Your task to perform on an android device: Search for Italian restaurants on Maps Image 0: 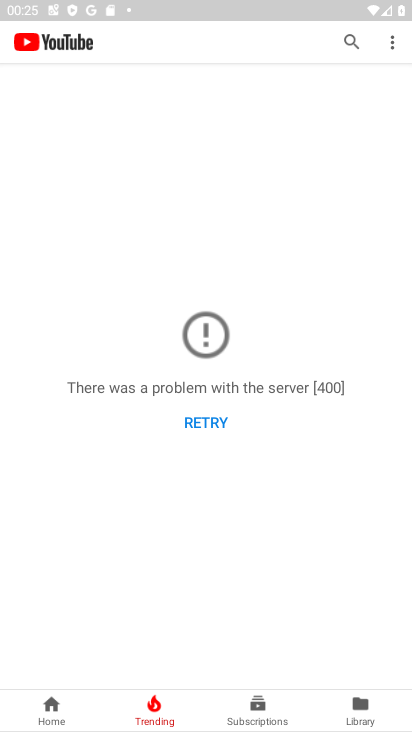
Step 0: press home button
Your task to perform on an android device: Search for Italian restaurants on Maps Image 1: 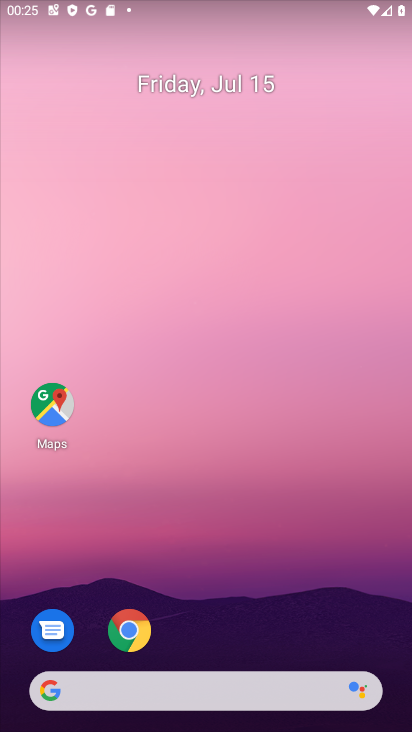
Step 1: click (61, 423)
Your task to perform on an android device: Search for Italian restaurants on Maps Image 2: 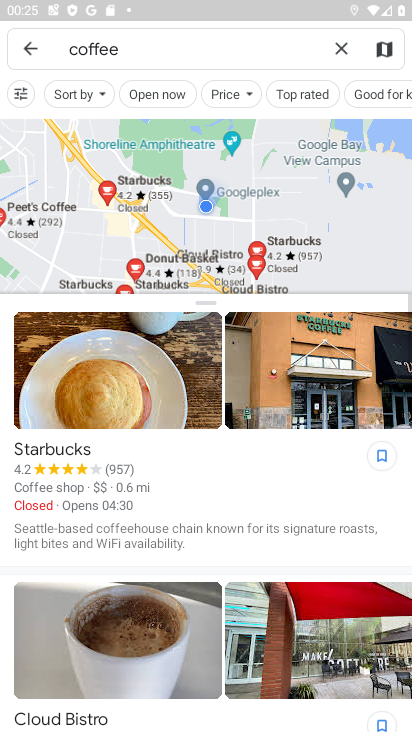
Step 2: click (341, 42)
Your task to perform on an android device: Search for Italian restaurants on Maps Image 3: 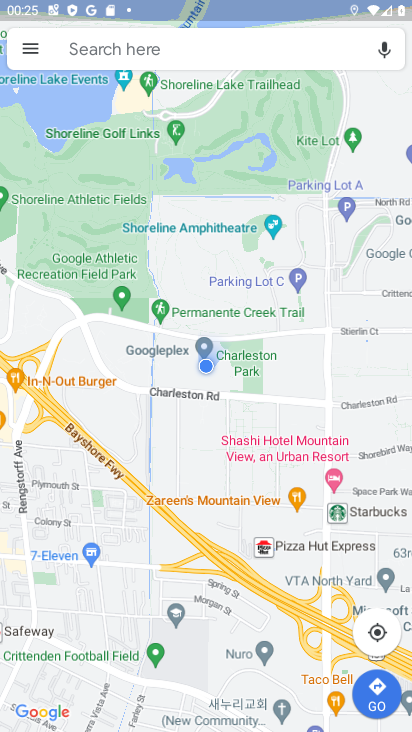
Step 3: type "italian"
Your task to perform on an android device: Search for Italian restaurants on Maps Image 4: 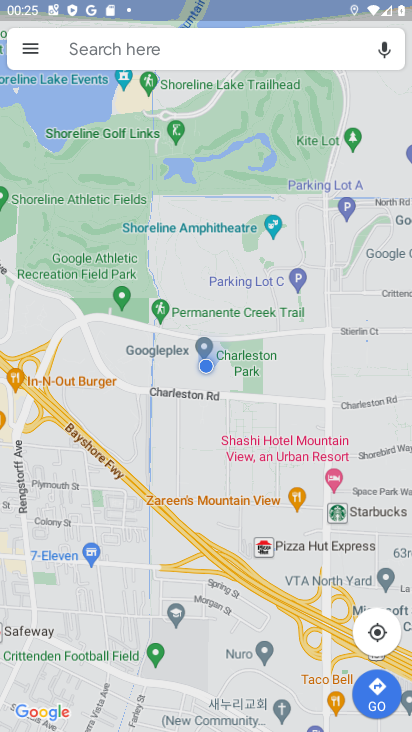
Step 4: click (166, 61)
Your task to perform on an android device: Search for Italian restaurants on Maps Image 5: 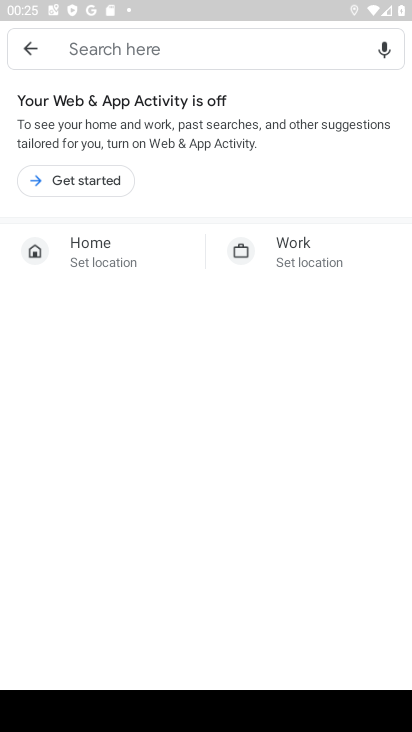
Step 5: type "italian"
Your task to perform on an android device: Search for Italian restaurants on Maps Image 6: 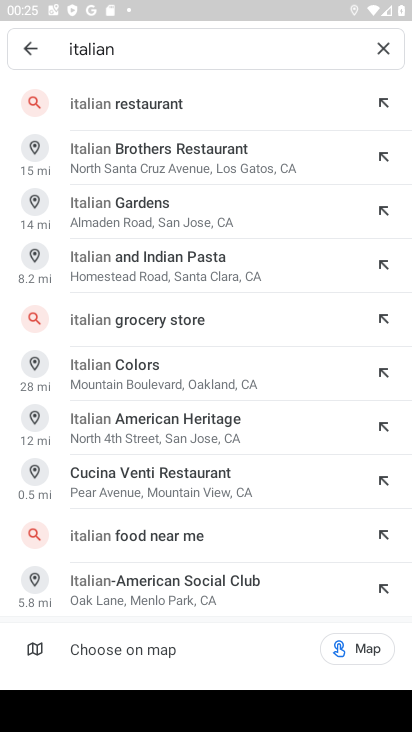
Step 6: click (106, 121)
Your task to perform on an android device: Search for Italian restaurants on Maps Image 7: 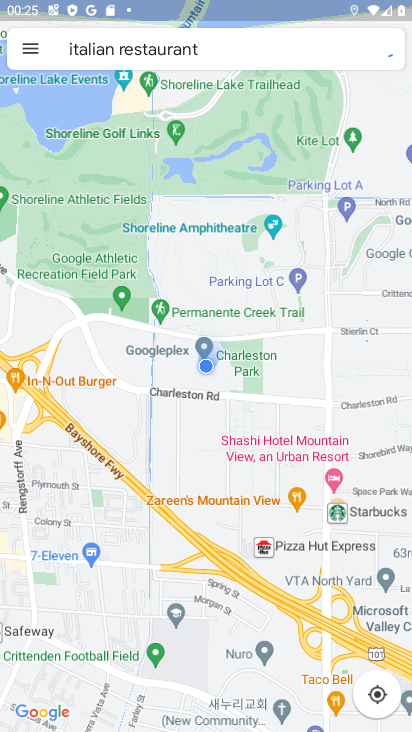
Step 7: task complete